Your task to perform on an android device: open a bookmark in the chrome app Image 0: 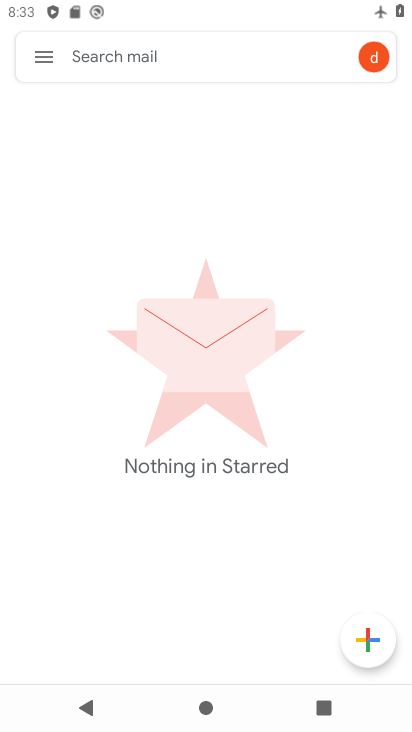
Step 0: press home button
Your task to perform on an android device: open a bookmark in the chrome app Image 1: 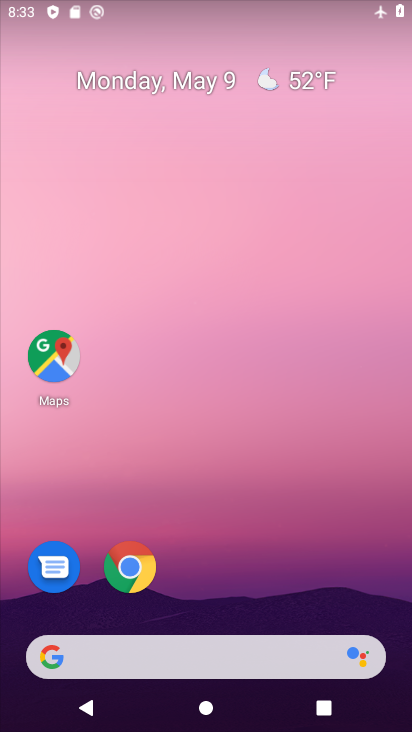
Step 1: drag from (255, 584) to (208, 95)
Your task to perform on an android device: open a bookmark in the chrome app Image 2: 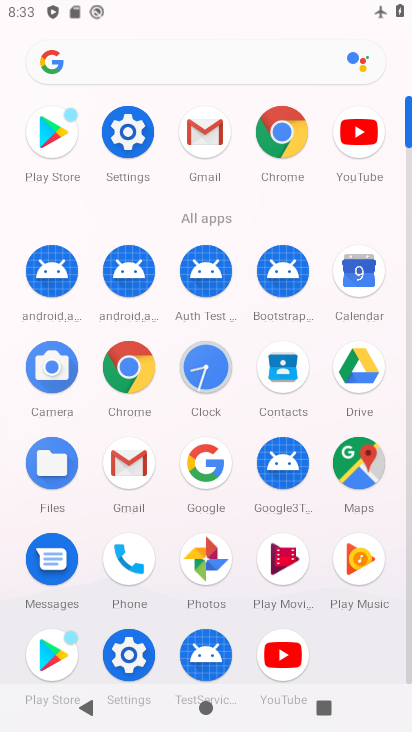
Step 2: click (282, 130)
Your task to perform on an android device: open a bookmark in the chrome app Image 3: 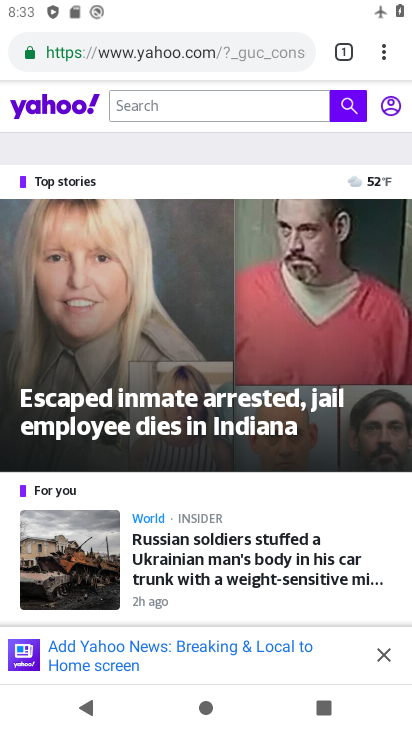
Step 3: click (381, 45)
Your task to perform on an android device: open a bookmark in the chrome app Image 4: 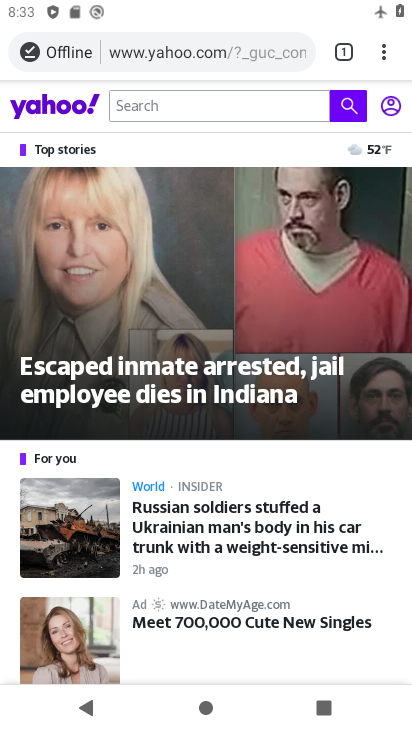
Step 4: click (387, 67)
Your task to perform on an android device: open a bookmark in the chrome app Image 5: 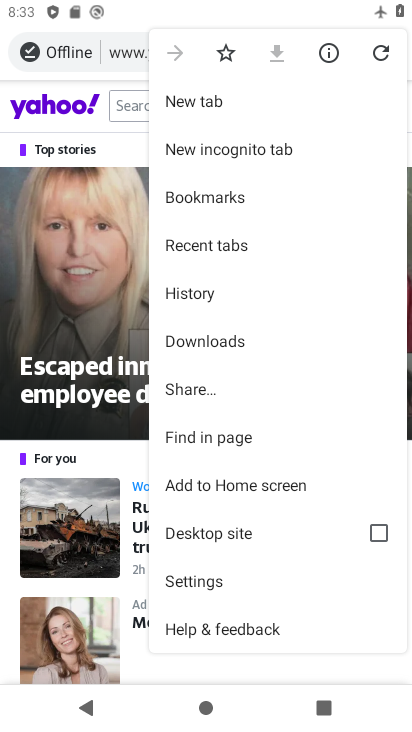
Step 5: drag from (241, 512) to (219, 199)
Your task to perform on an android device: open a bookmark in the chrome app Image 6: 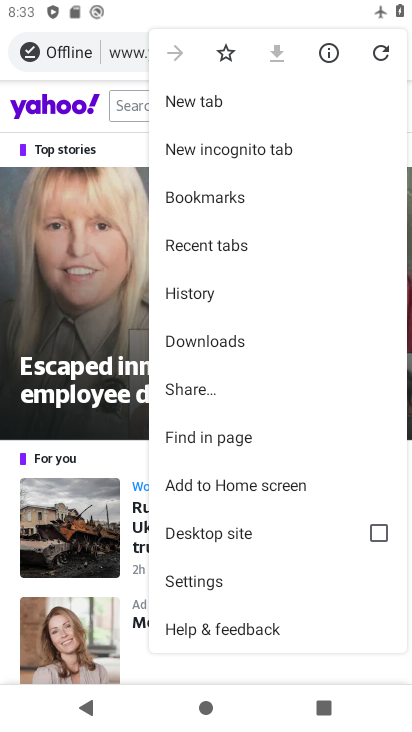
Step 6: click (223, 199)
Your task to perform on an android device: open a bookmark in the chrome app Image 7: 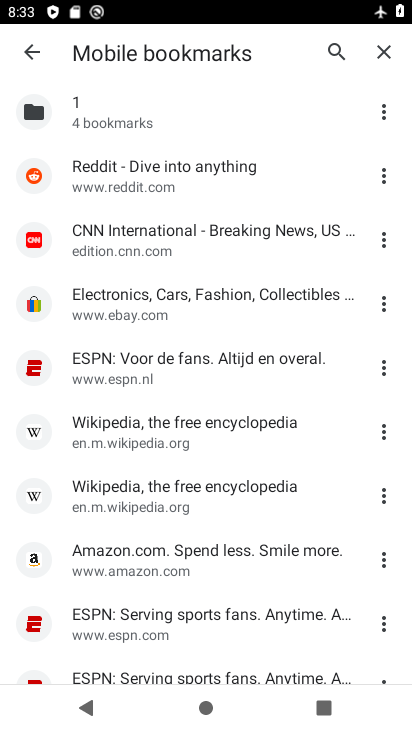
Step 7: click (155, 306)
Your task to perform on an android device: open a bookmark in the chrome app Image 8: 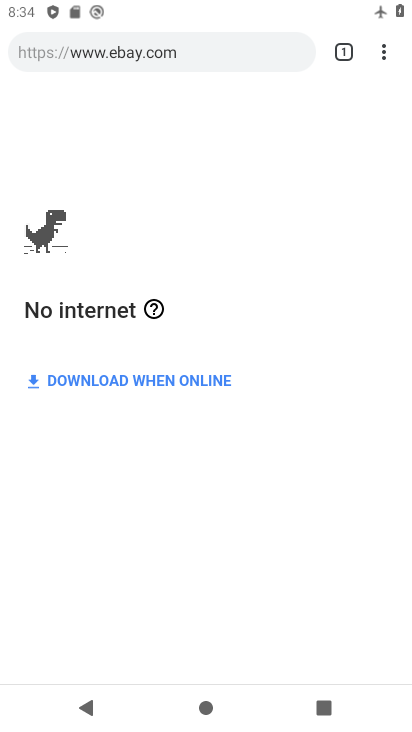
Step 8: drag from (380, 4) to (371, 486)
Your task to perform on an android device: open a bookmark in the chrome app Image 9: 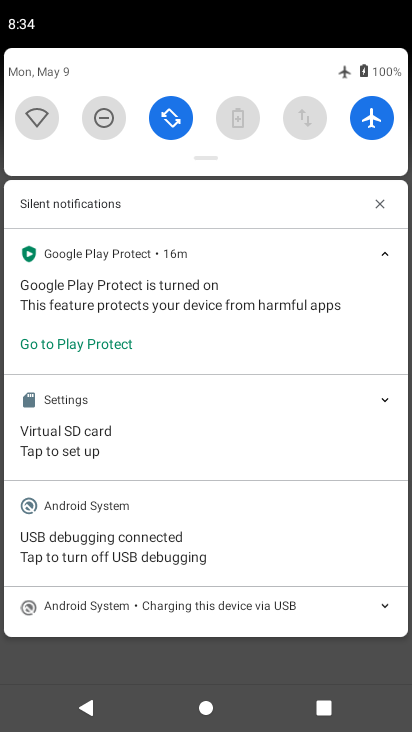
Step 9: click (371, 131)
Your task to perform on an android device: open a bookmark in the chrome app Image 10: 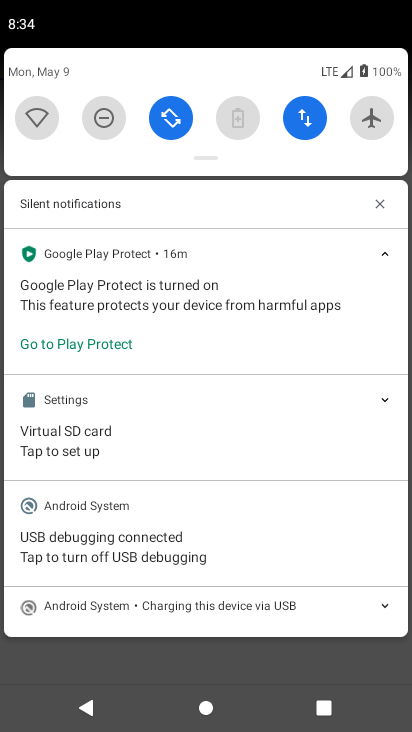
Step 10: task complete